Your task to perform on an android device: Open Google Maps and go to "Timeline" Image 0: 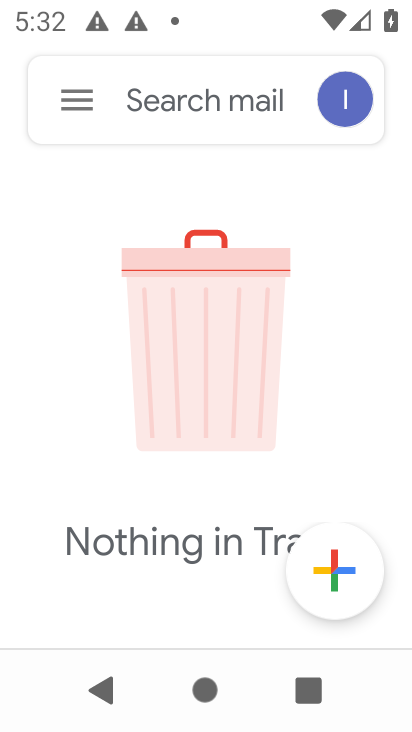
Step 0: press home button
Your task to perform on an android device: Open Google Maps and go to "Timeline" Image 1: 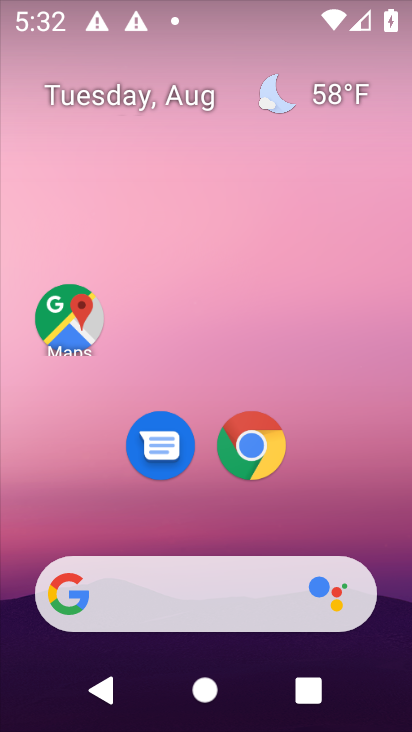
Step 1: drag from (190, 532) to (208, 171)
Your task to perform on an android device: Open Google Maps and go to "Timeline" Image 2: 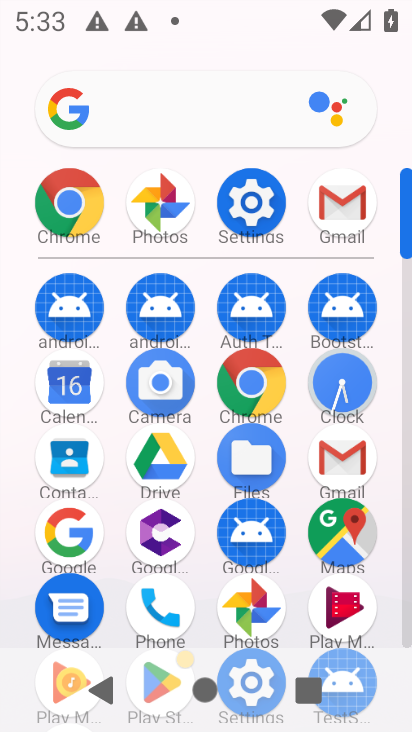
Step 2: click (337, 534)
Your task to perform on an android device: Open Google Maps and go to "Timeline" Image 3: 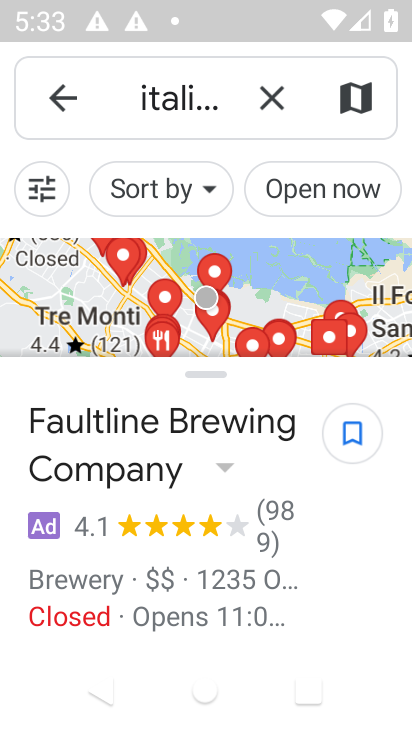
Step 3: click (58, 101)
Your task to perform on an android device: Open Google Maps and go to "Timeline" Image 4: 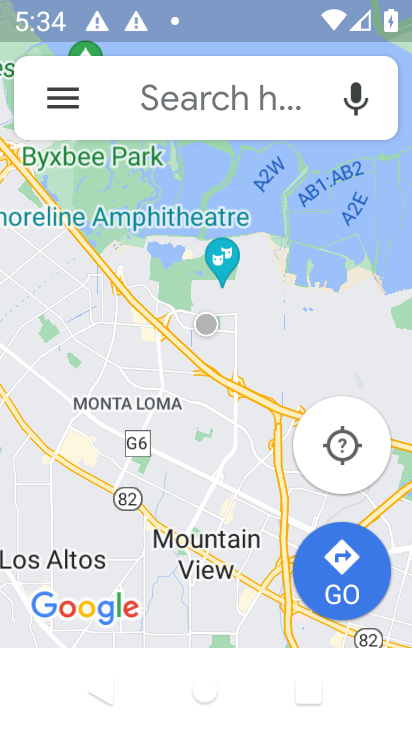
Step 4: click (66, 95)
Your task to perform on an android device: Open Google Maps and go to "Timeline" Image 5: 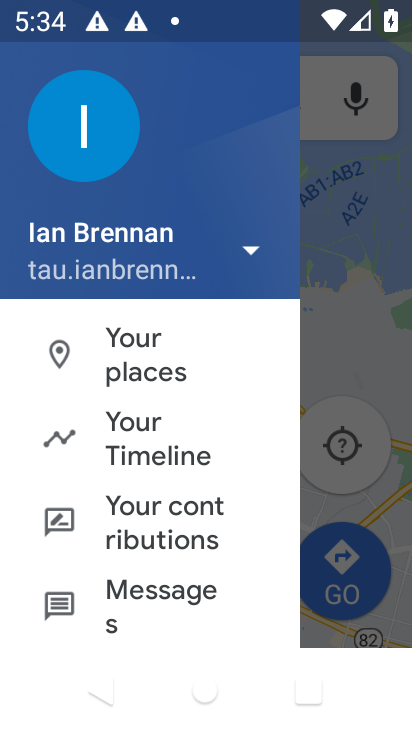
Step 5: click (136, 449)
Your task to perform on an android device: Open Google Maps and go to "Timeline" Image 6: 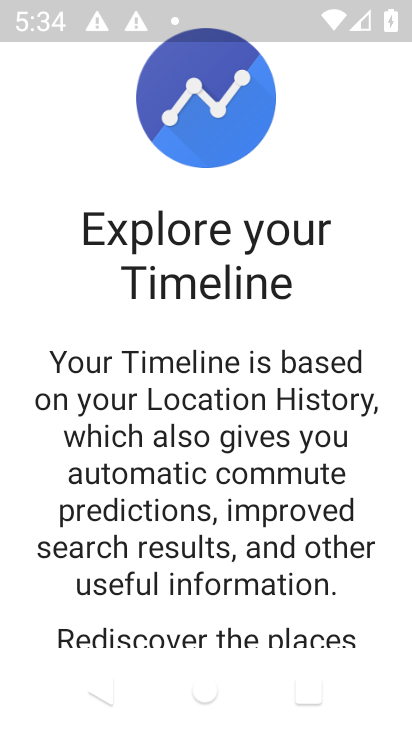
Step 6: drag from (189, 533) to (221, 252)
Your task to perform on an android device: Open Google Maps and go to "Timeline" Image 7: 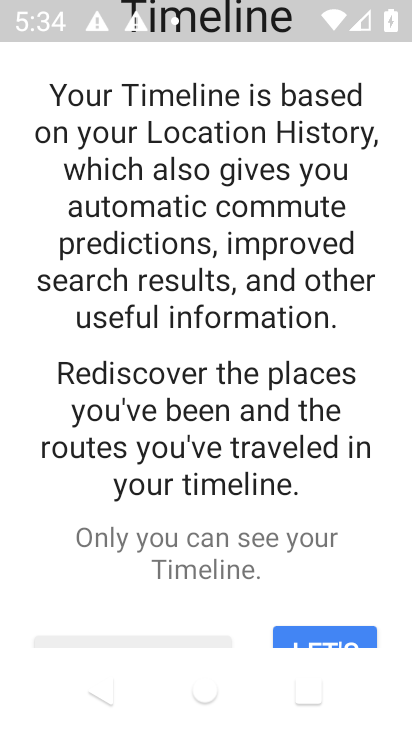
Step 7: drag from (190, 451) to (218, 224)
Your task to perform on an android device: Open Google Maps and go to "Timeline" Image 8: 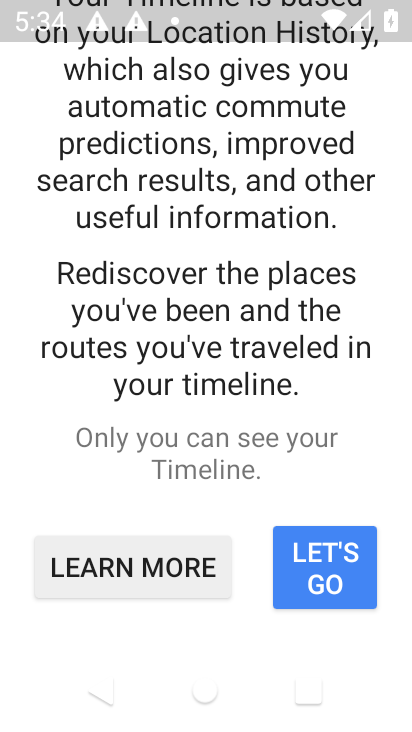
Step 8: click (318, 566)
Your task to perform on an android device: Open Google Maps and go to "Timeline" Image 9: 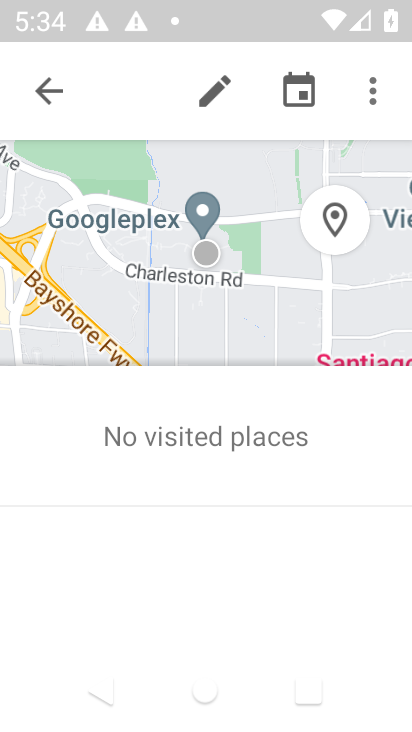
Step 9: drag from (199, 504) to (215, 198)
Your task to perform on an android device: Open Google Maps and go to "Timeline" Image 10: 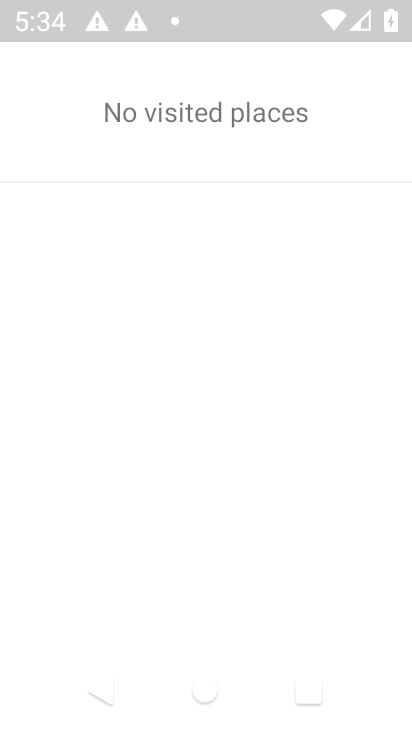
Step 10: press back button
Your task to perform on an android device: Open Google Maps and go to "Timeline" Image 11: 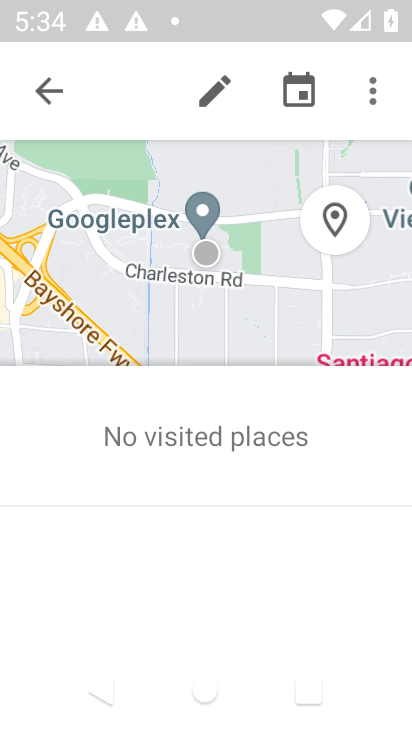
Step 11: click (370, 90)
Your task to perform on an android device: Open Google Maps and go to "Timeline" Image 12: 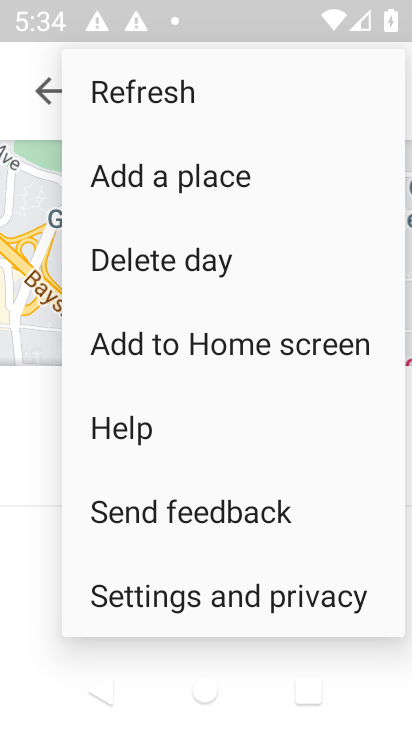
Step 12: task complete